Your task to perform on an android device: Open network settings Image 0: 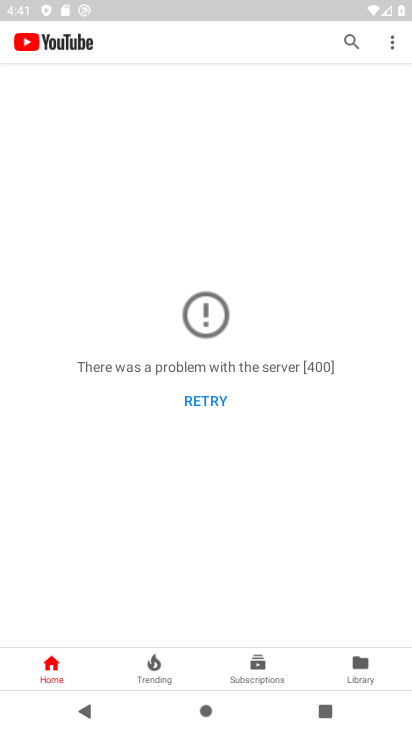
Step 0: press home button
Your task to perform on an android device: Open network settings Image 1: 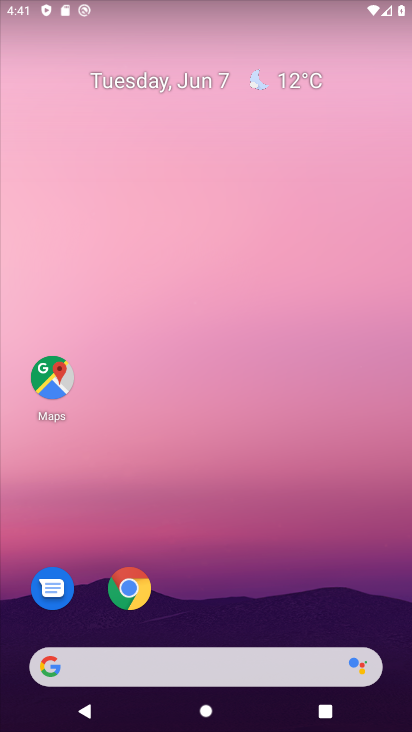
Step 1: drag from (199, 568) to (187, 37)
Your task to perform on an android device: Open network settings Image 2: 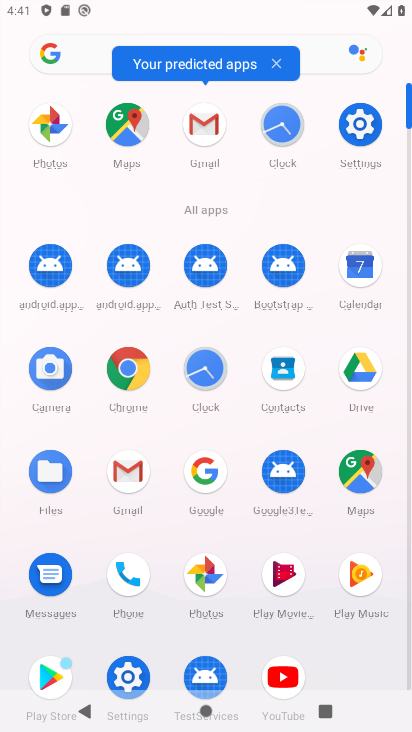
Step 2: click (359, 142)
Your task to perform on an android device: Open network settings Image 3: 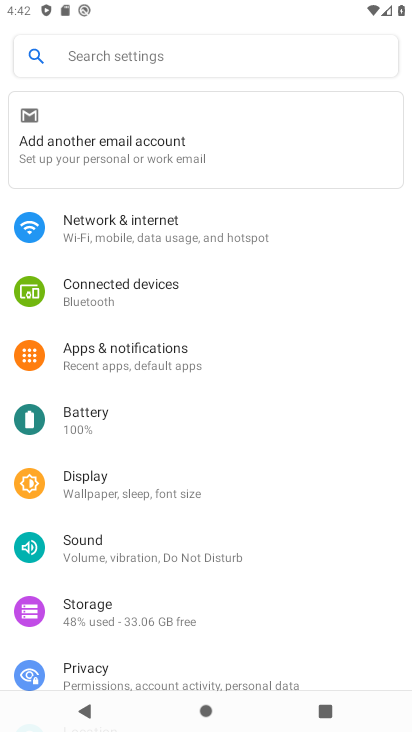
Step 3: drag from (111, 647) to (113, 346)
Your task to perform on an android device: Open network settings Image 4: 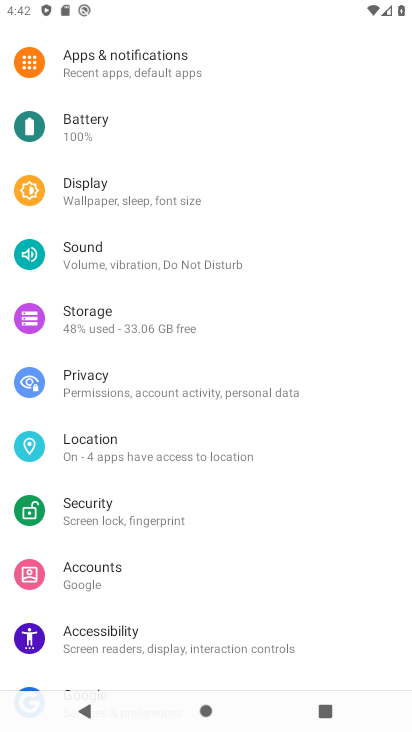
Step 4: click (97, 86)
Your task to perform on an android device: Open network settings Image 5: 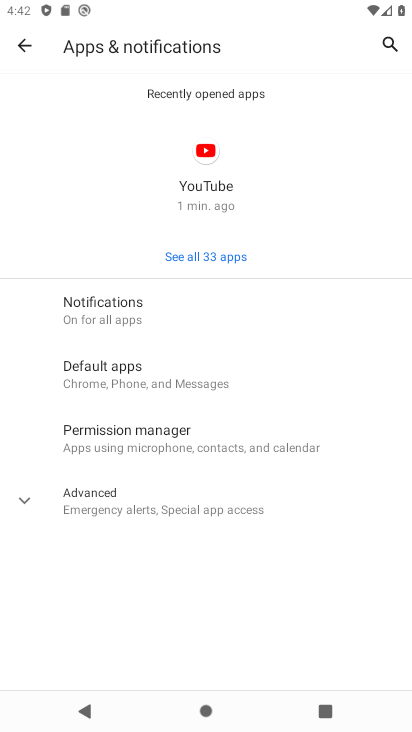
Step 5: press back button
Your task to perform on an android device: Open network settings Image 6: 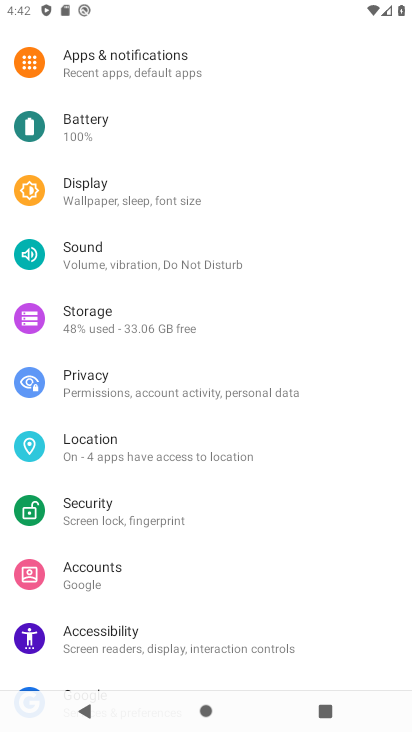
Step 6: drag from (152, 186) to (156, 729)
Your task to perform on an android device: Open network settings Image 7: 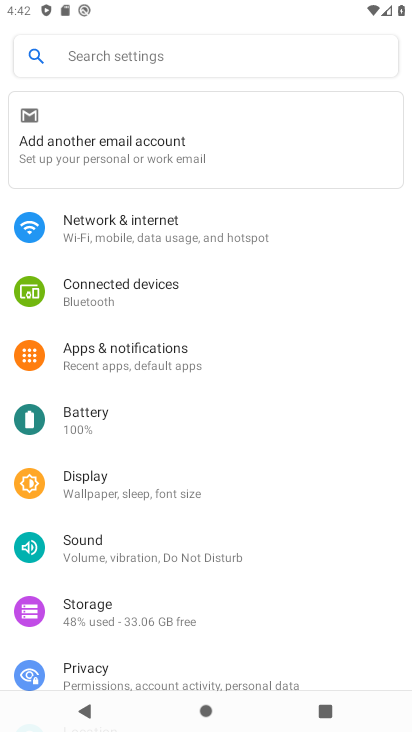
Step 7: click (107, 235)
Your task to perform on an android device: Open network settings Image 8: 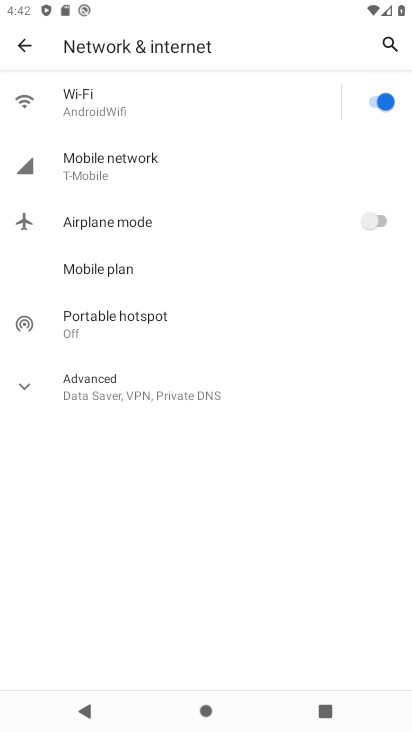
Step 8: task complete